Your task to perform on an android device: turn on priority inbox in the gmail app Image 0: 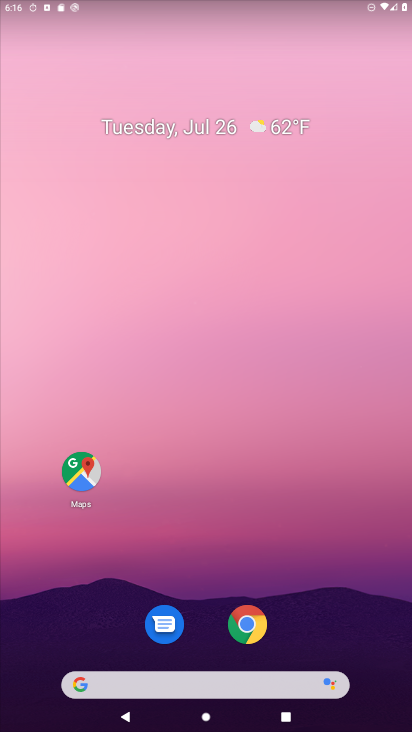
Step 0: drag from (166, 672) to (305, 1)
Your task to perform on an android device: turn on priority inbox in the gmail app Image 1: 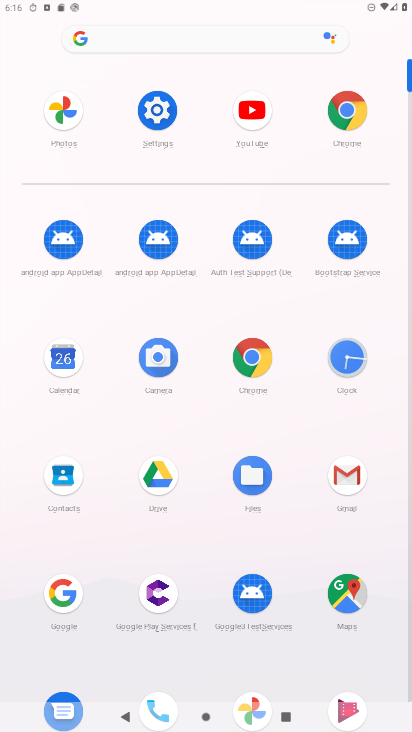
Step 1: click (360, 474)
Your task to perform on an android device: turn on priority inbox in the gmail app Image 2: 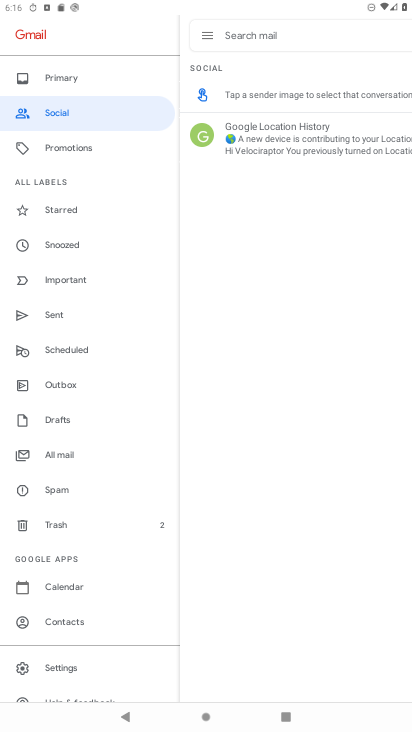
Step 2: click (56, 673)
Your task to perform on an android device: turn on priority inbox in the gmail app Image 3: 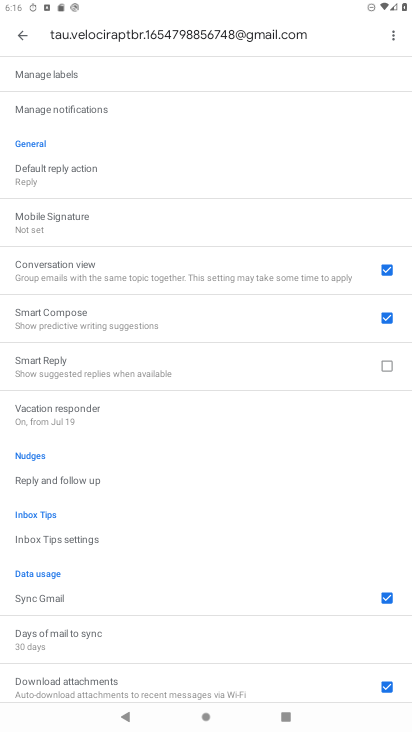
Step 3: drag from (95, 188) to (147, 601)
Your task to perform on an android device: turn on priority inbox in the gmail app Image 4: 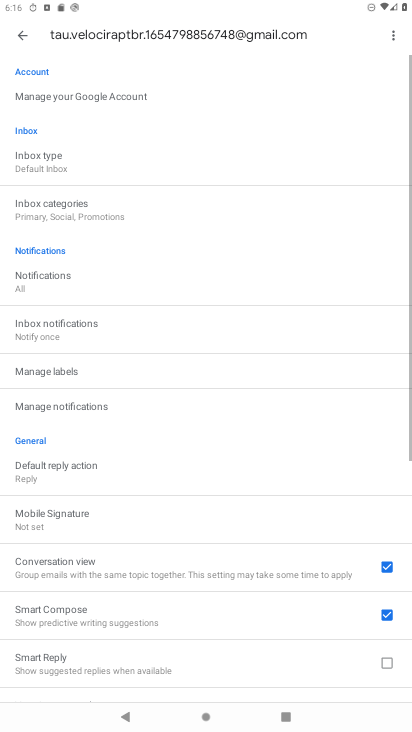
Step 4: click (57, 168)
Your task to perform on an android device: turn on priority inbox in the gmail app Image 5: 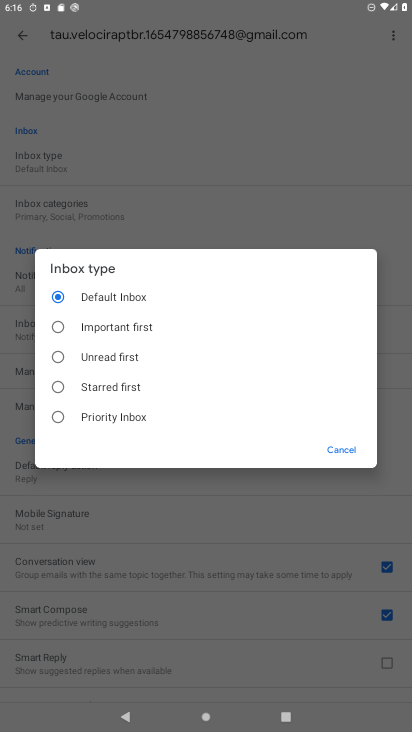
Step 5: click (63, 423)
Your task to perform on an android device: turn on priority inbox in the gmail app Image 6: 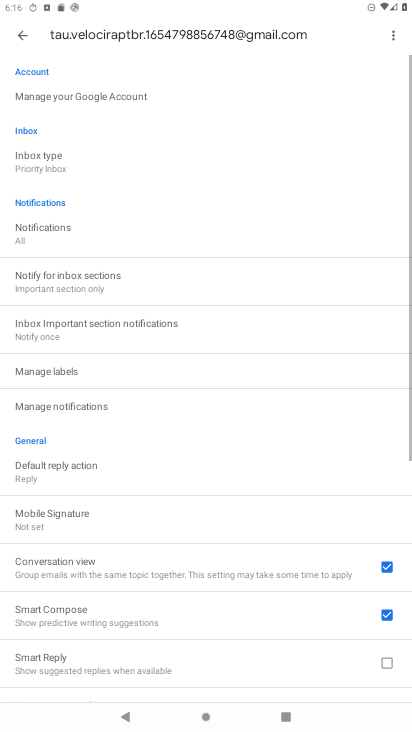
Step 6: task complete